Your task to perform on an android device: Go to Android settings Image 0: 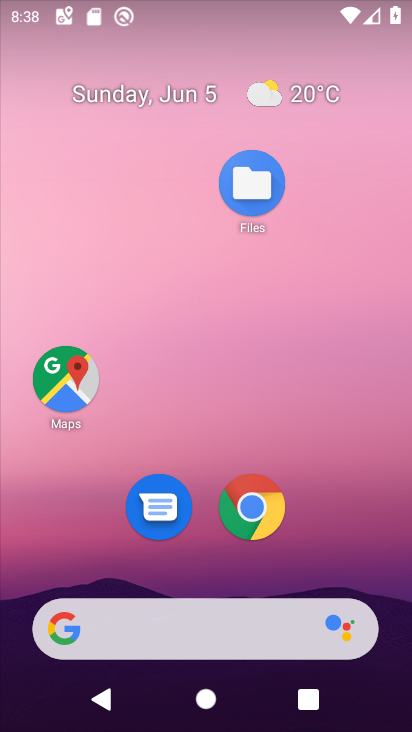
Step 0: drag from (215, 571) to (183, 11)
Your task to perform on an android device: Go to Android settings Image 1: 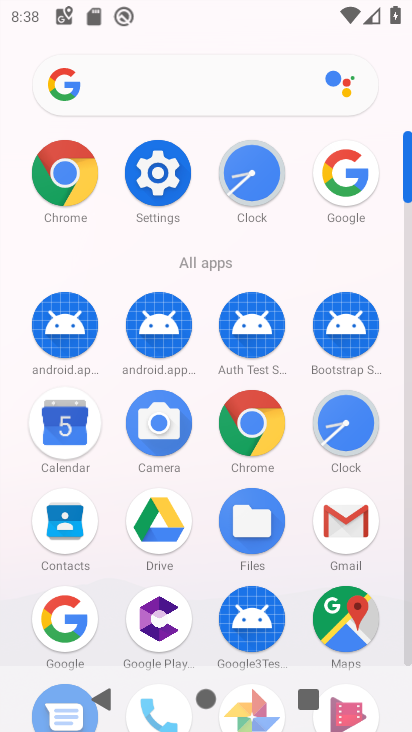
Step 1: click (159, 171)
Your task to perform on an android device: Go to Android settings Image 2: 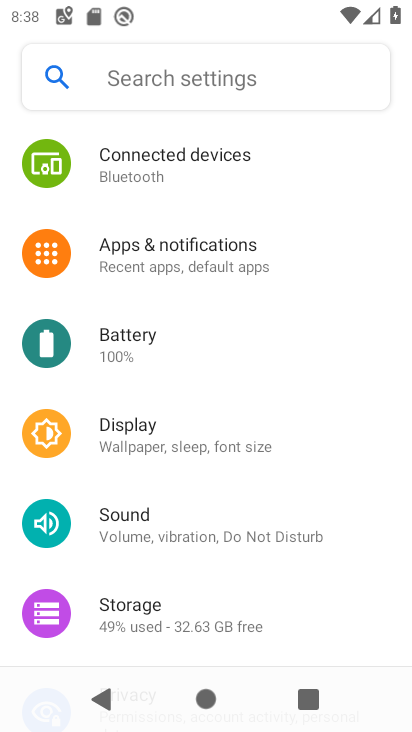
Step 2: task complete